Your task to perform on an android device: Open the phone app and click the voicemail tab. Image 0: 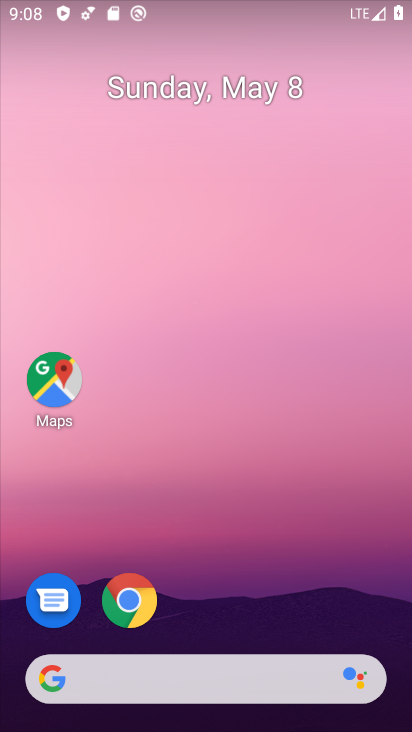
Step 0: drag from (359, 619) to (321, 0)
Your task to perform on an android device: Open the phone app and click the voicemail tab. Image 1: 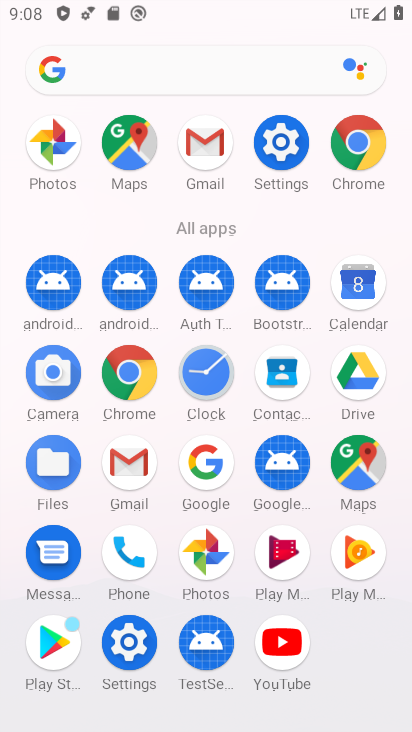
Step 1: click (127, 557)
Your task to perform on an android device: Open the phone app and click the voicemail tab. Image 2: 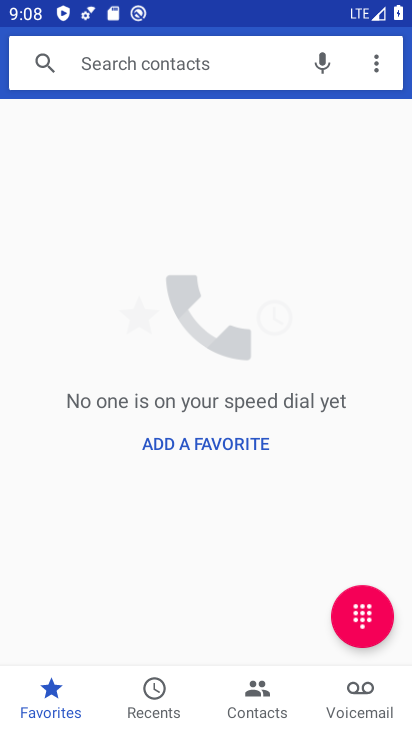
Step 2: click (349, 702)
Your task to perform on an android device: Open the phone app and click the voicemail tab. Image 3: 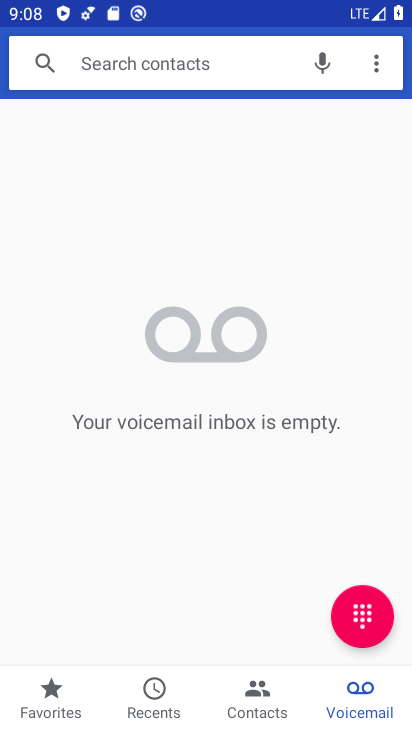
Step 3: task complete